Your task to perform on an android device: open a new tab in the chrome app Image 0: 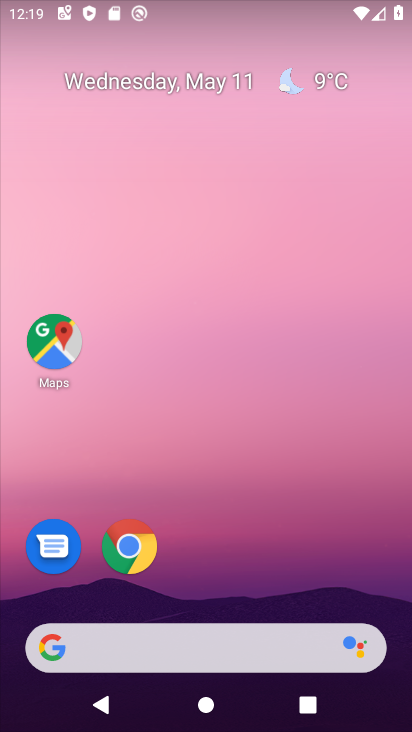
Step 0: drag from (167, 630) to (189, 142)
Your task to perform on an android device: open a new tab in the chrome app Image 1: 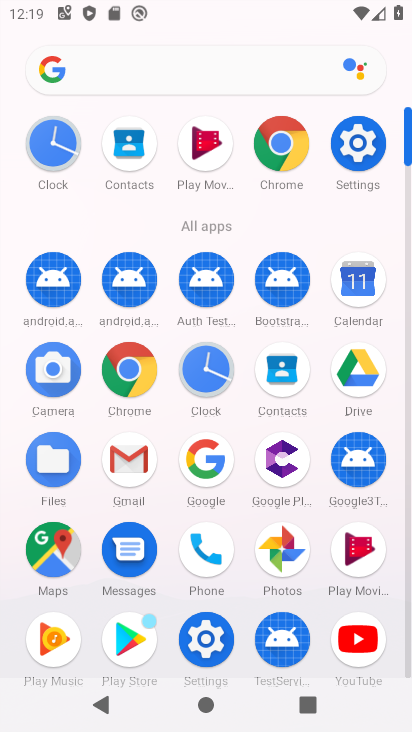
Step 1: click (140, 383)
Your task to perform on an android device: open a new tab in the chrome app Image 2: 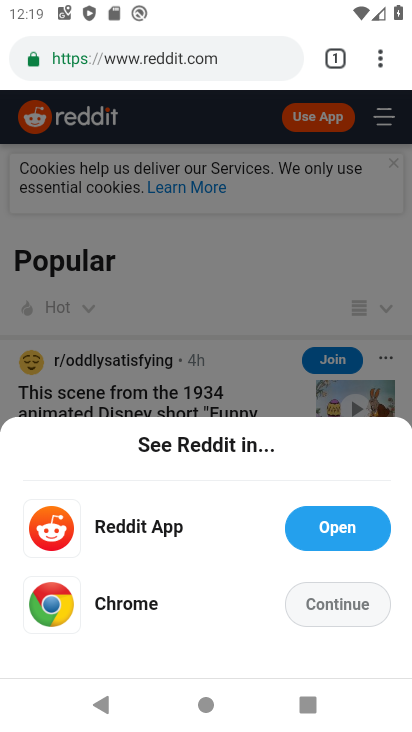
Step 2: click (404, 266)
Your task to perform on an android device: open a new tab in the chrome app Image 3: 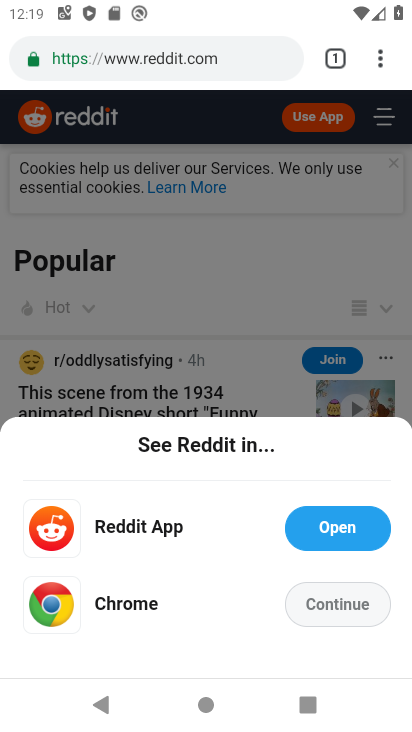
Step 3: press back button
Your task to perform on an android device: open a new tab in the chrome app Image 4: 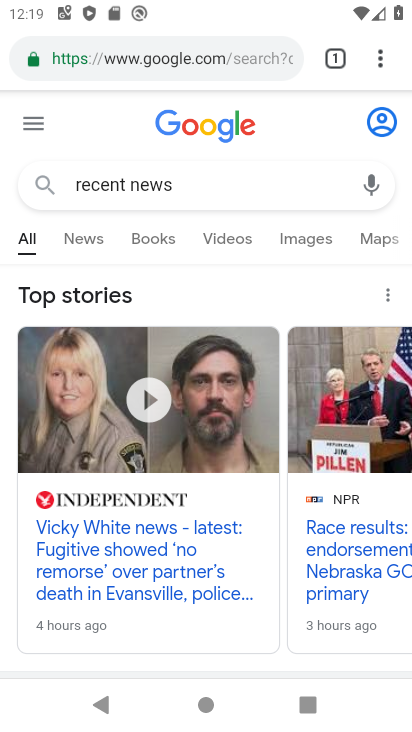
Step 4: drag from (387, 62) to (206, 120)
Your task to perform on an android device: open a new tab in the chrome app Image 5: 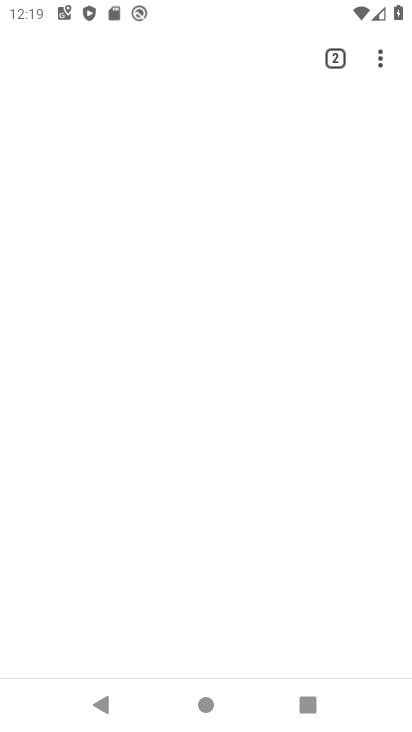
Step 5: click (200, 118)
Your task to perform on an android device: open a new tab in the chrome app Image 6: 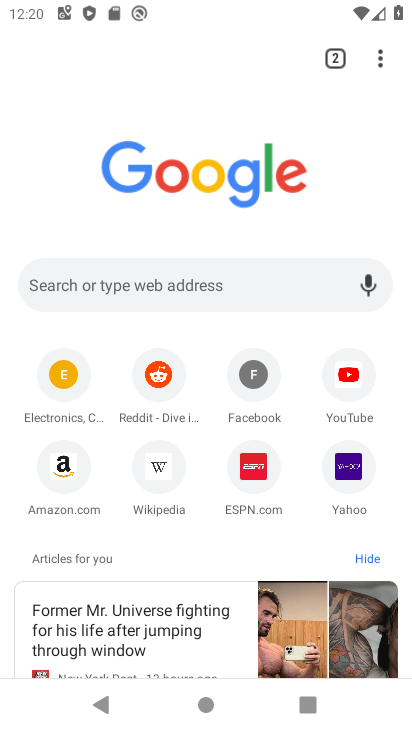
Step 6: task complete